Your task to perform on an android device: Open Google Chrome Image 0: 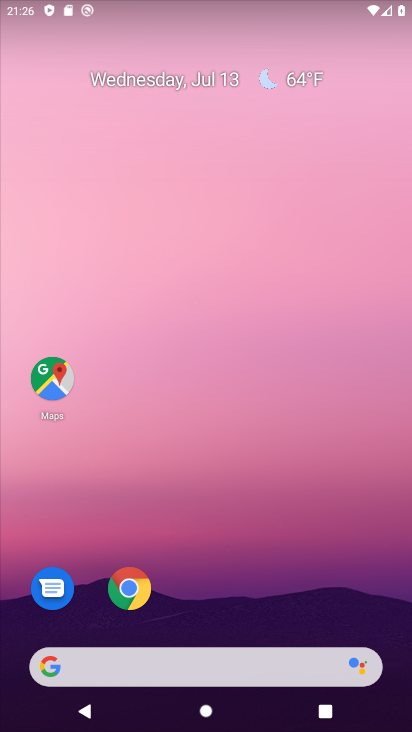
Step 0: click (138, 602)
Your task to perform on an android device: Open Google Chrome Image 1: 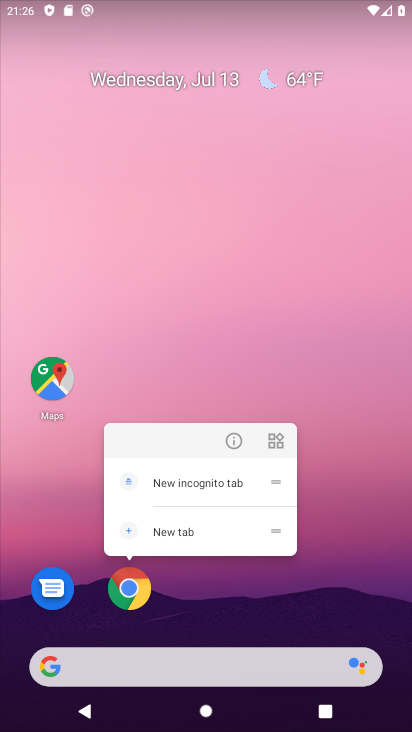
Step 1: click (133, 598)
Your task to perform on an android device: Open Google Chrome Image 2: 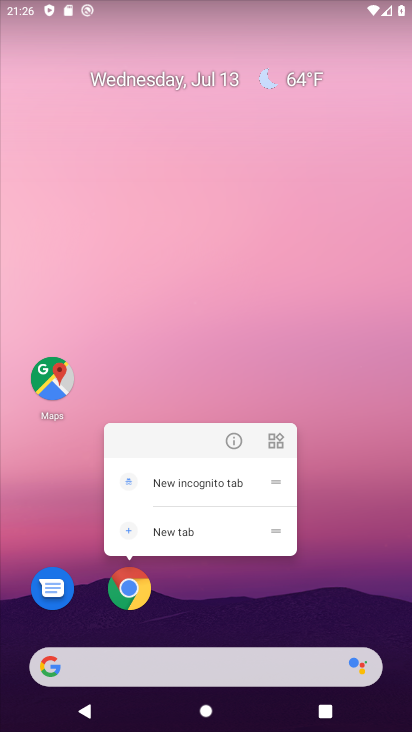
Step 2: click (124, 578)
Your task to perform on an android device: Open Google Chrome Image 3: 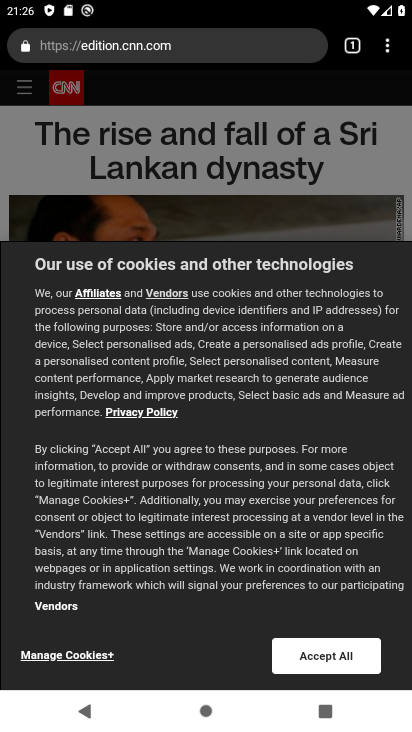
Step 3: task complete